Your task to perform on an android device: What's the weather going to be this weekend? Image 0: 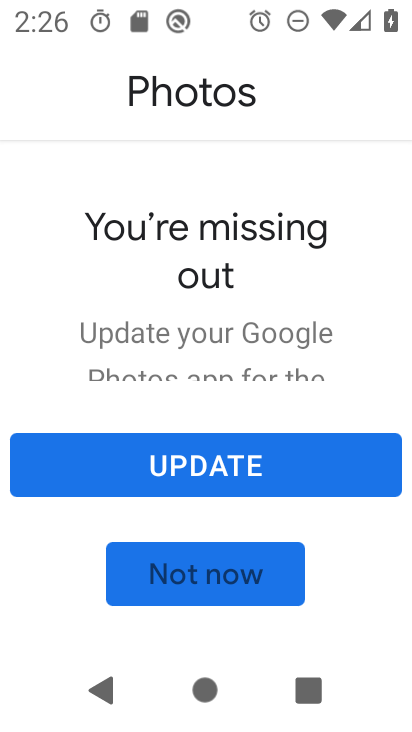
Step 0: press home button
Your task to perform on an android device: What's the weather going to be this weekend? Image 1: 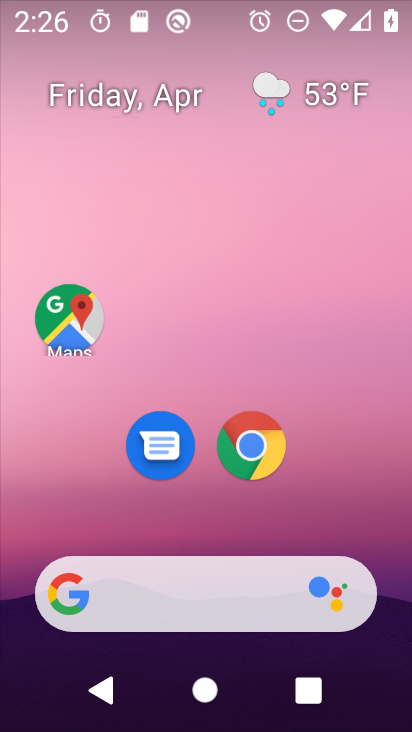
Step 1: click (218, 590)
Your task to perform on an android device: What's the weather going to be this weekend? Image 2: 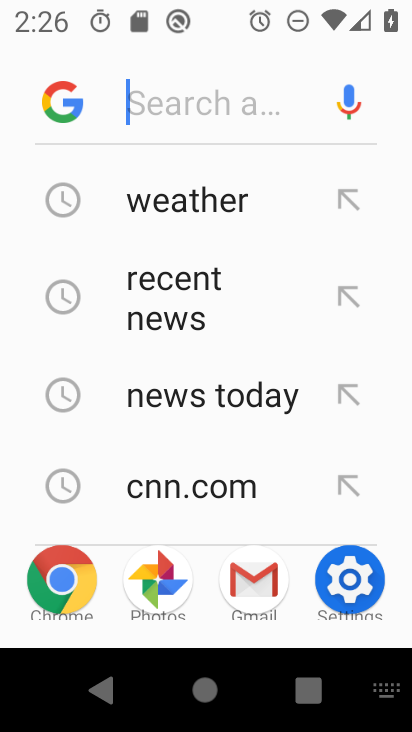
Step 2: click (185, 199)
Your task to perform on an android device: What's the weather going to be this weekend? Image 3: 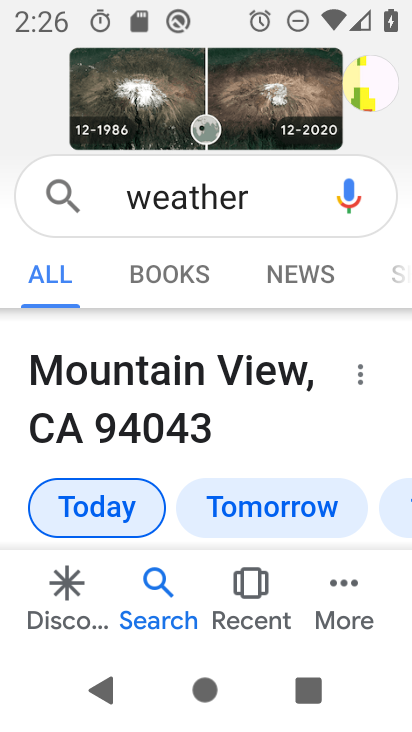
Step 3: drag from (337, 434) to (331, 211)
Your task to perform on an android device: What's the weather going to be this weekend? Image 4: 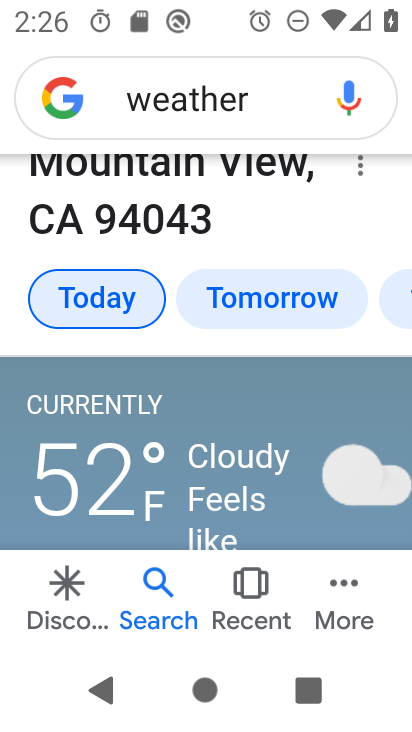
Step 4: drag from (378, 331) to (65, 331)
Your task to perform on an android device: What's the weather going to be this weekend? Image 5: 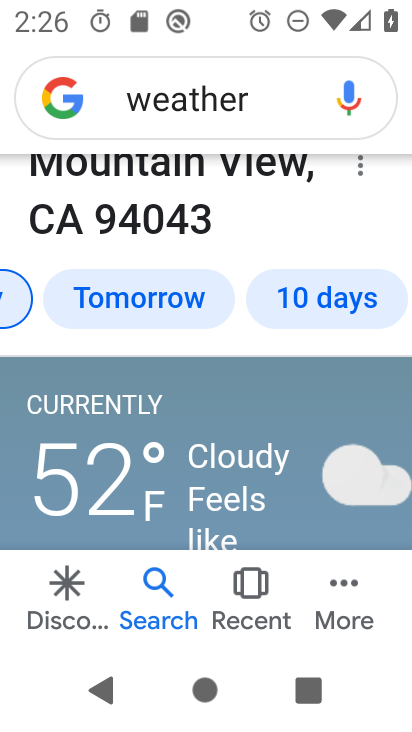
Step 5: click (336, 302)
Your task to perform on an android device: What's the weather going to be this weekend? Image 6: 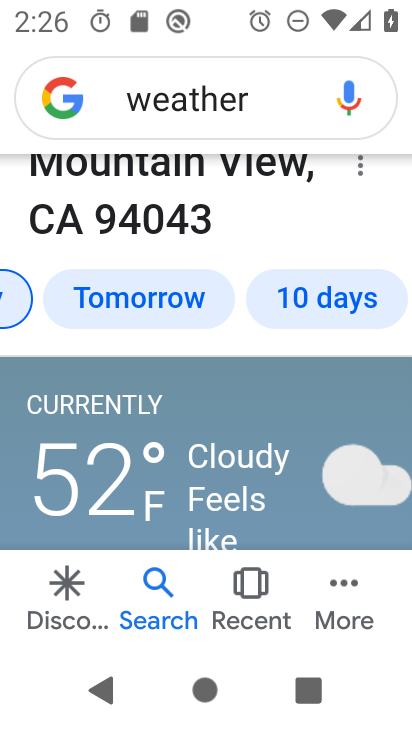
Step 6: click (324, 286)
Your task to perform on an android device: What's the weather going to be this weekend? Image 7: 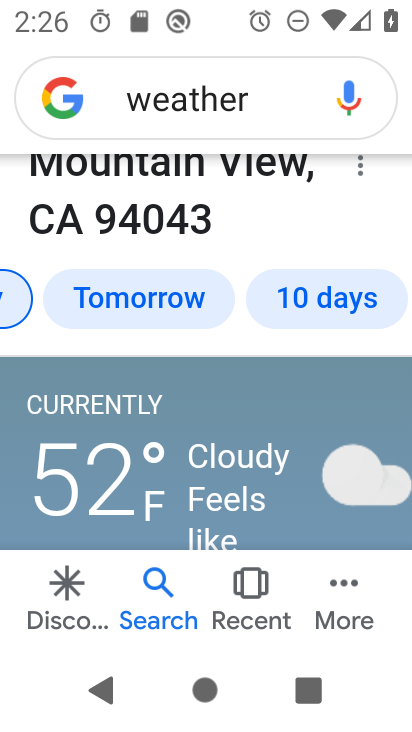
Step 7: click (325, 288)
Your task to perform on an android device: What's the weather going to be this weekend? Image 8: 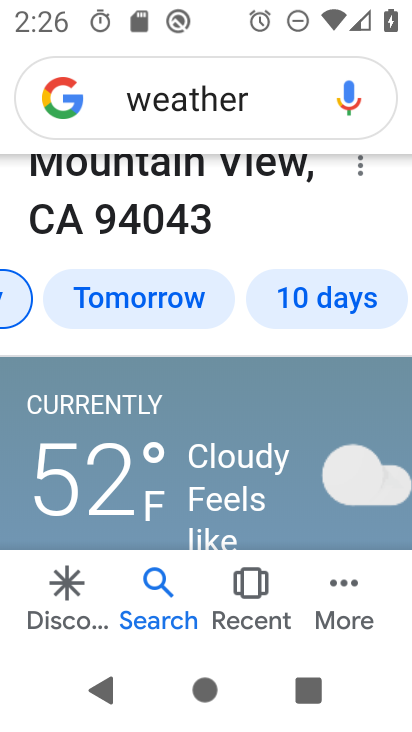
Step 8: click (324, 287)
Your task to perform on an android device: What's the weather going to be this weekend? Image 9: 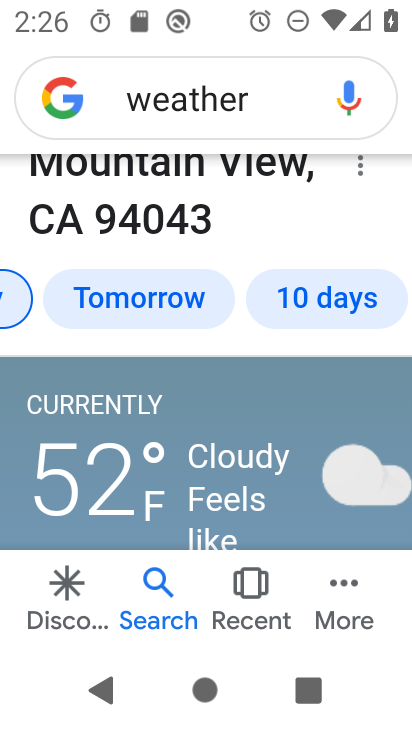
Step 9: click (367, 300)
Your task to perform on an android device: What's the weather going to be this weekend? Image 10: 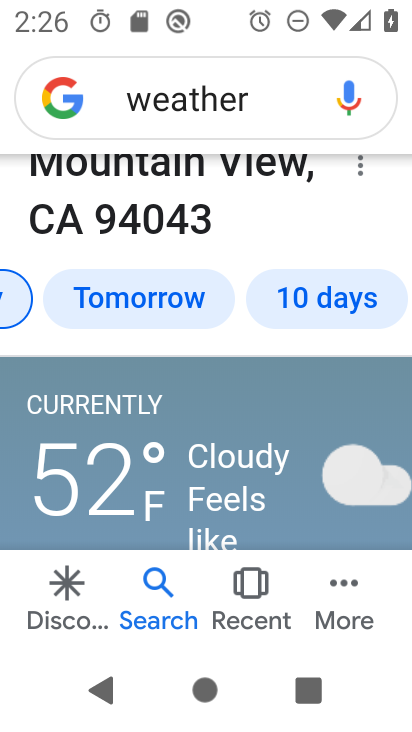
Step 10: task complete